Your task to perform on an android device: Go to Maps Image 0: 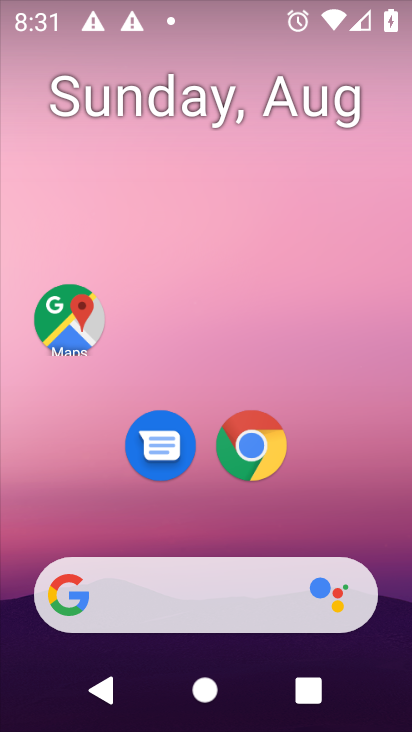
Step 0: click (69, 327)
Your task to perform on an android device: Go to Maps Image 1: 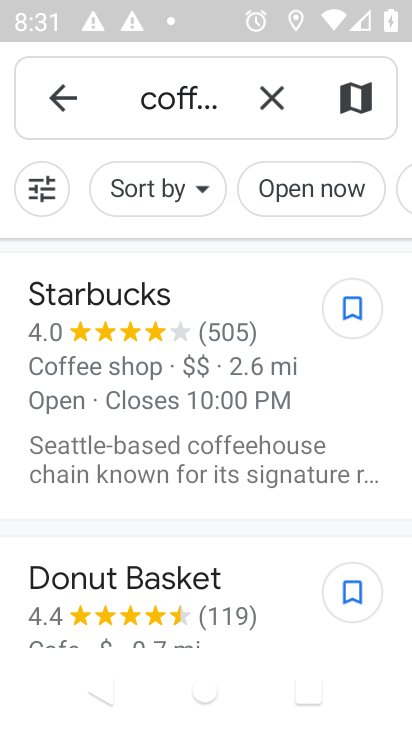
Step 1: press home button
Your task to perform on an android device: Go to Maps Image 2: 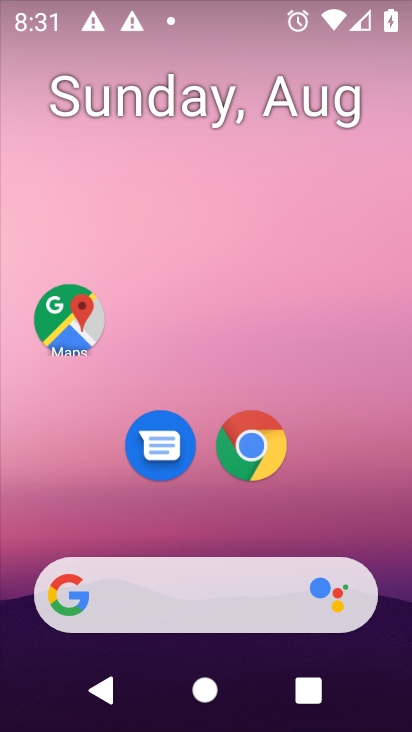
Step 2: click (70, 312)
Your task to perform on an android device: Go to Maps Image 3: 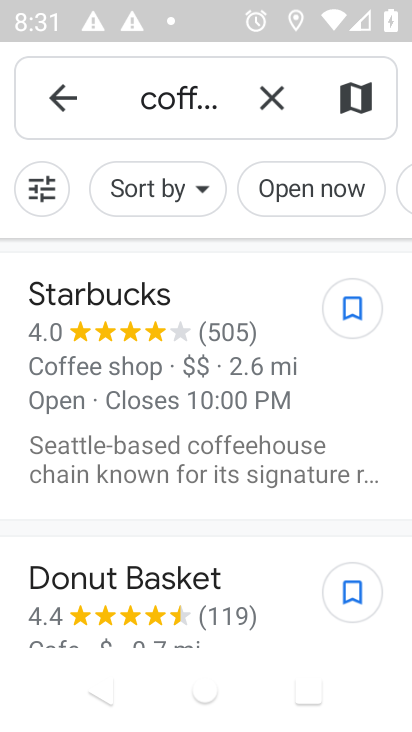
Step 3: click (50, 94)
Your task to perform on an android device: Go to Maps Image 4: 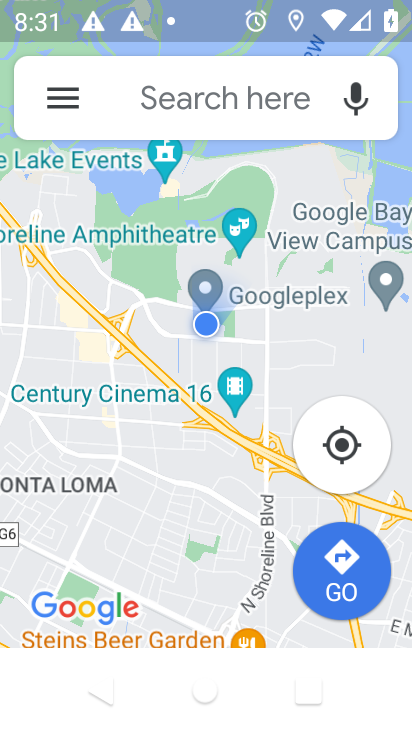
Step 4: task complete